Your task to perform on an android device: turn on sleep mode Image 0: 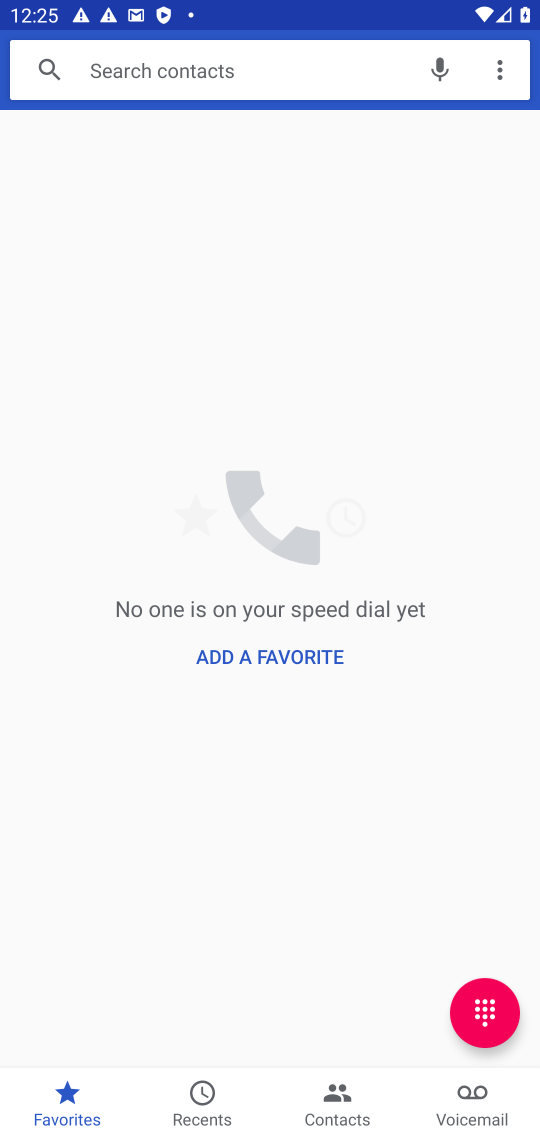
Step 0: press home button
Your task to perform on an android device: turn on sleep mode Image 1: 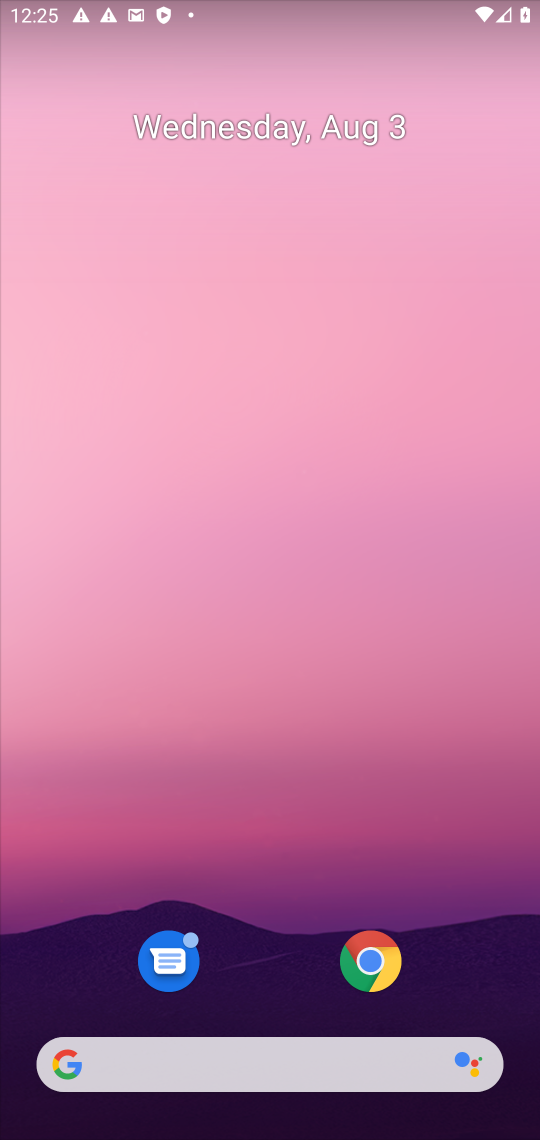
Step 1: drag from (260, 872) to (287, 11)
Your task to perform on an android device: turn on sleep mode Image 2: 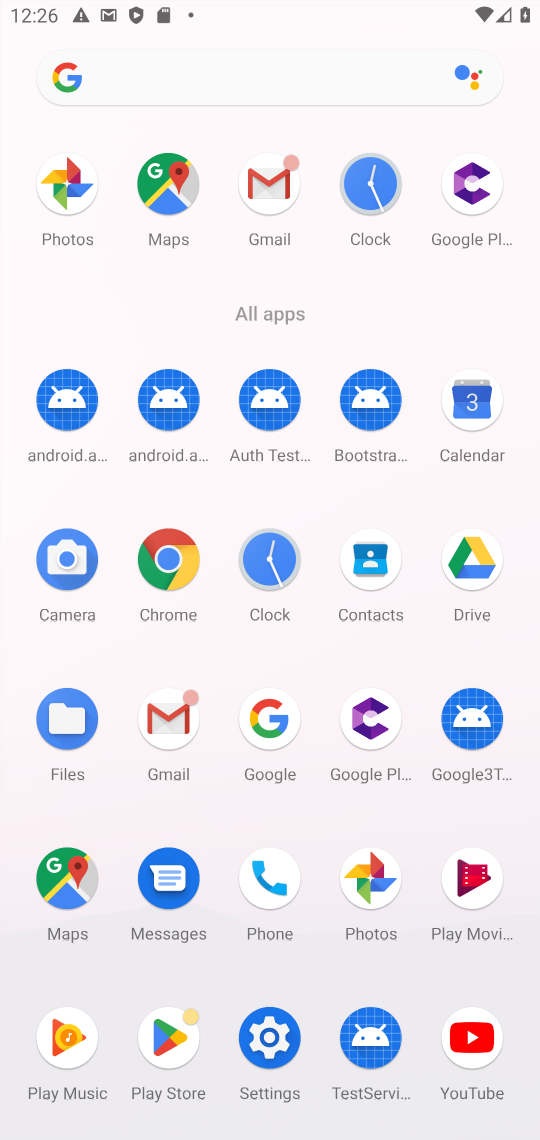
Step 2: click (271, 1023)
Your task to perform on an android device: turn on sleep mode Image 3: 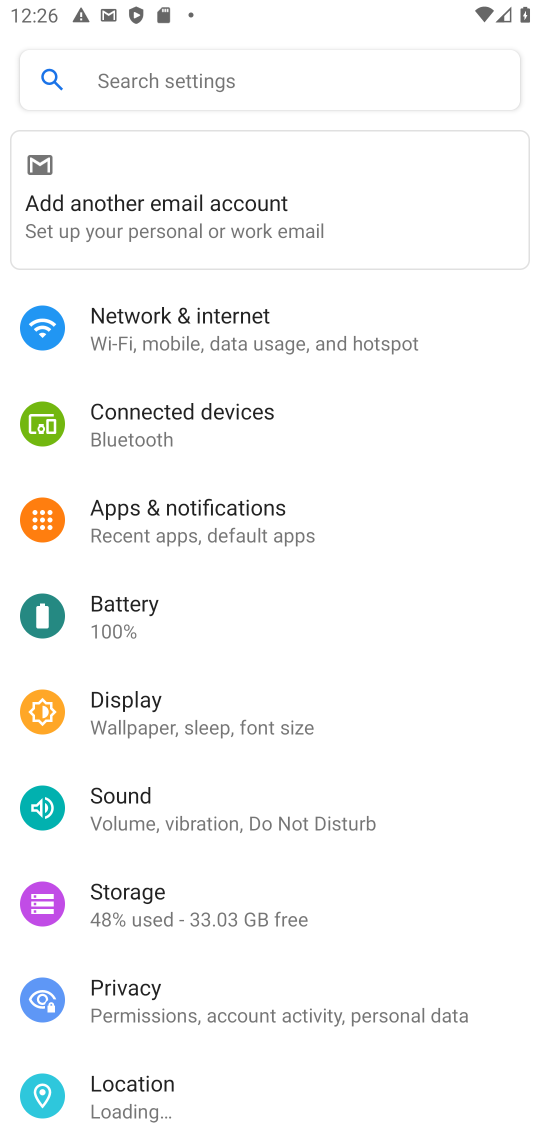
Step 3: click (154, 725)
Your task to perform on an android device: turn on sleep mode Image 4: 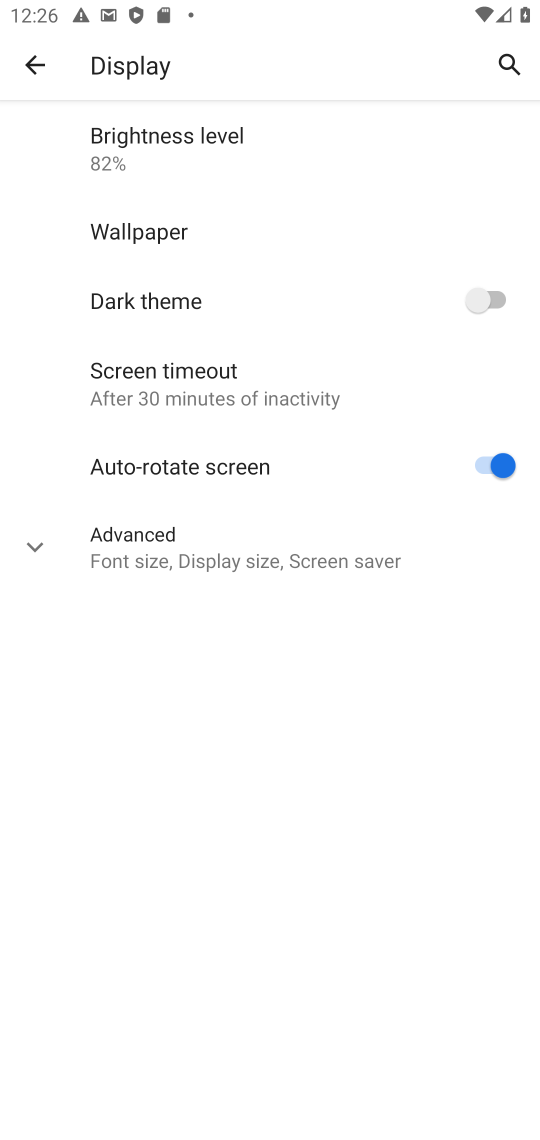
Step 4: click (45, 559)
Your task to perform on an android device: turn on sleep mode Image 5: 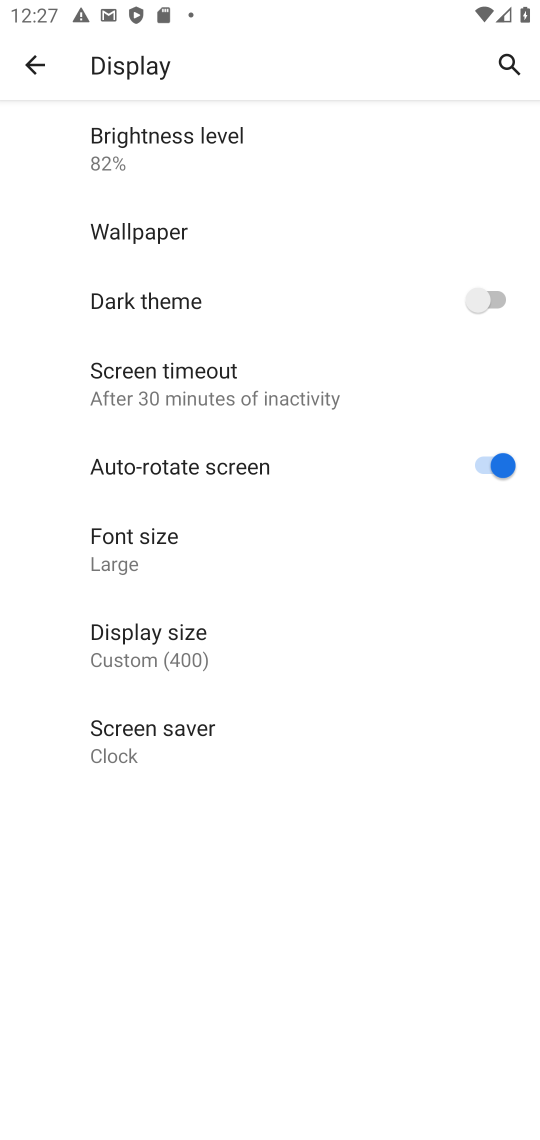
Step 5: task complete